Your task to perform on an android device: Search for logitech g903 on amazon.com, select the first entry, add it to the cart, then select checkout. Image 0: 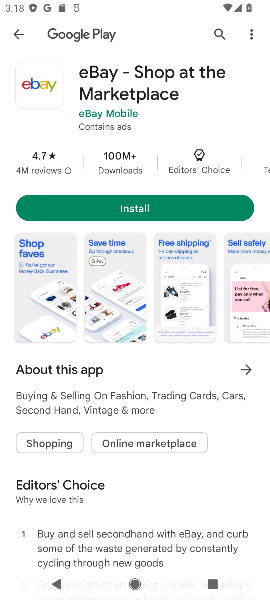
Step 0: press home button
Your task to perform on an android device: Search for logitech g903 on amazon.com, select the first entry, add it to the cart, then select checkout. Image 1: 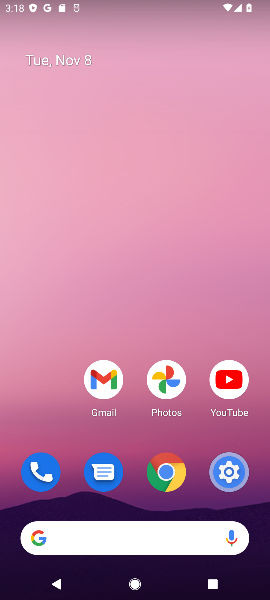
Step 1: click (128, 532)
Your task to perform on an android device: Search for logitech g903 on amazon.com, select the first entry, add it to the cart, then select checkout. Image 2: 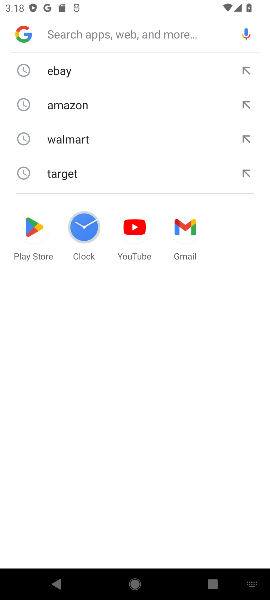
Step 2: click (108, 113)
Your task to perform on an android device: Search for logitech g903 on amazon.com, select the first entry, add it to the cart, then select checkout. Image 3: 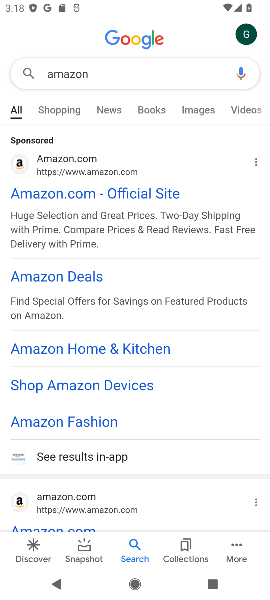
Step 3: click (104, 178)
Your task to perform on an android device: Search for logitech g903 on amazon.com, select the first entry, add it to the cart, then select checkout. Image 4: 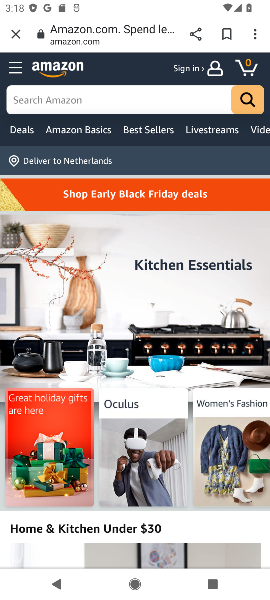
Step 4: task complete